Your task to perform on an android device: turn on the 12-hour format for clock Image 0: 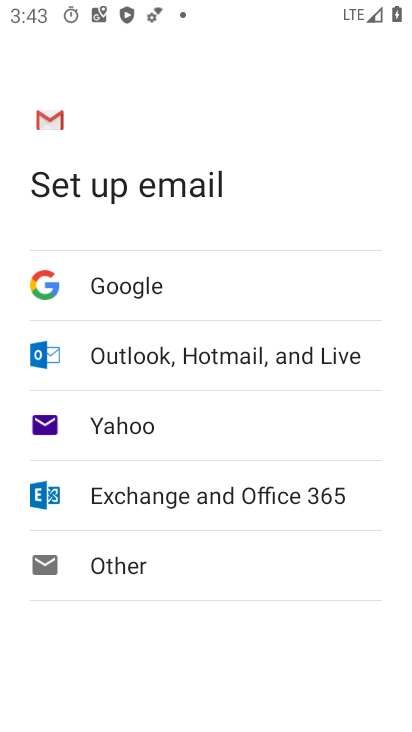
Step 0: press home button
Your task to perform on an android device: turn on the 12-hour format for clock Image 1: 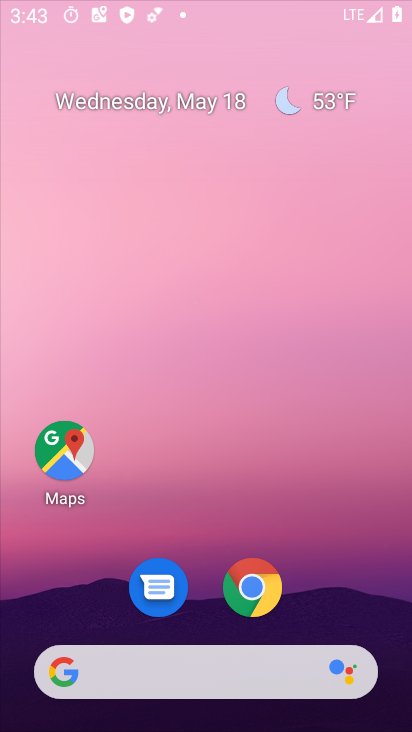
Step 1: drag from (224, 688) to (324, 40)
Your task to perform on an android device: turn on the 12-hour format for clock Image 2: 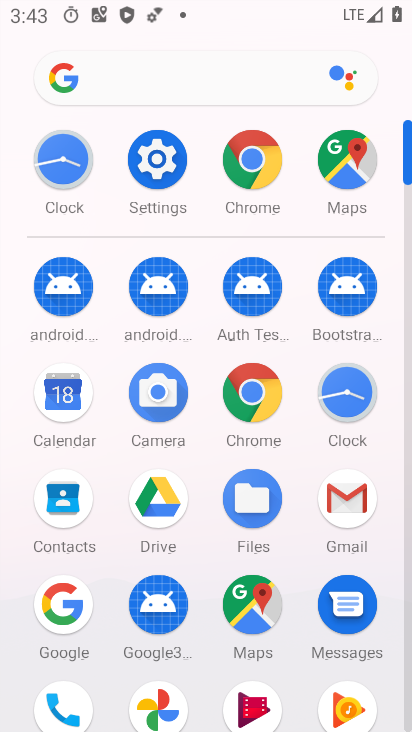
Step 2: click (351, 422)
Your task to perform on an android device: turn on the 12-hour format for clock Image 3: 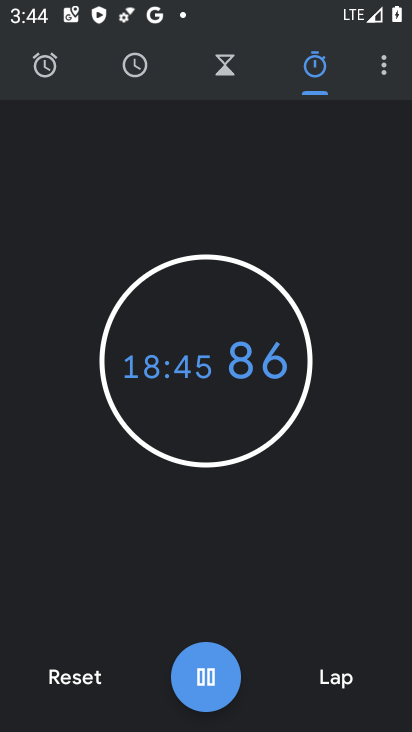
Step 3: click (385, 77)
Your task to perform on an android device: turn on the 12-hour format for clock Image 4: 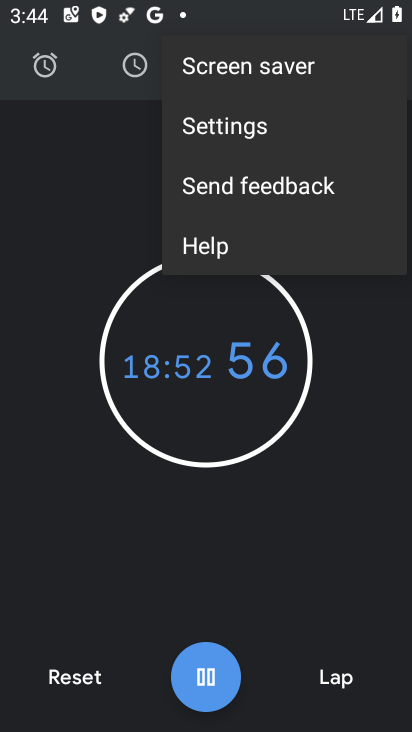
Step 4: click (276, 131)
Your task to perform on an android device: turn on the 12-hour format for clock Image 5: 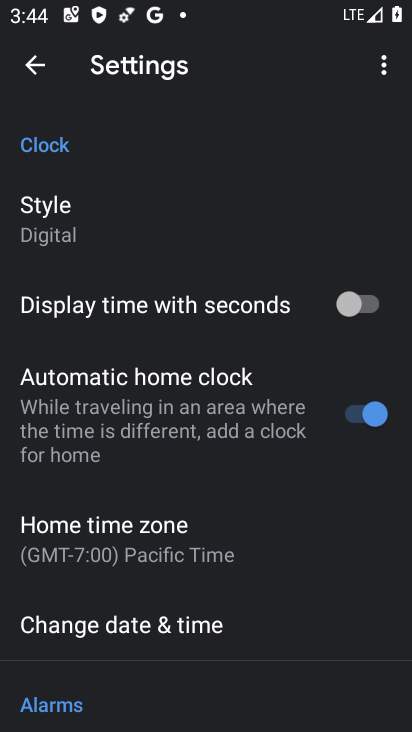
Step 5: drag from (170, 555) to (227, 307)
Your task to perform on an android device: turn on the 12-hour format for clock Image 6: 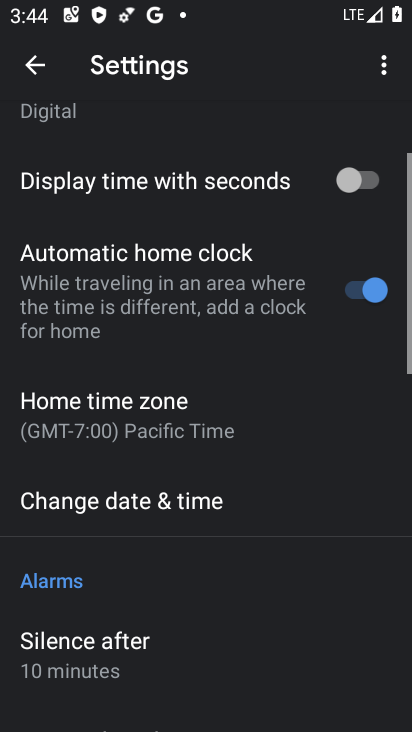
Step 6: click (234, 281)
Your task to perform on an android device: turn on the 12-hour format for clock Image 7: 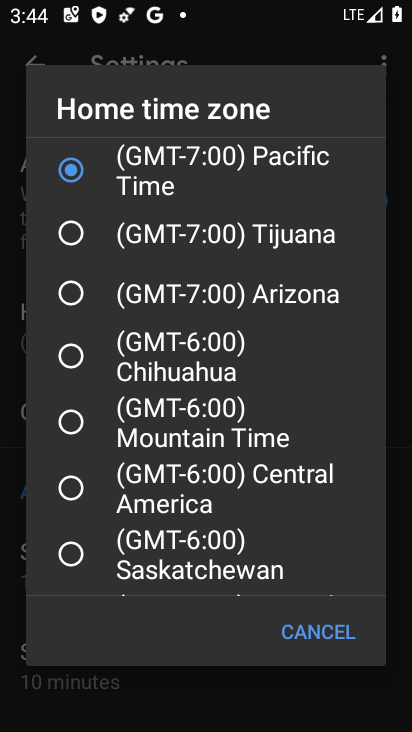
Step 7: click (288, 648)
Your task to perform on an android device: turn on the 12-hour format for clock Image 8: 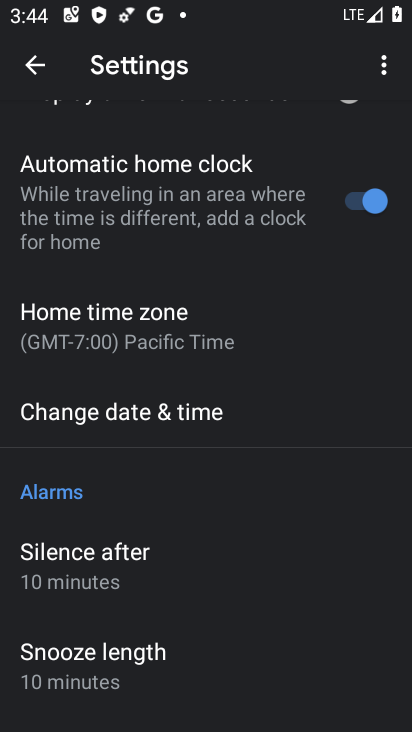
Step 8: click (212, 438)
Your task to perform on an android device: turn on the 12-hour format for clock Image 9: 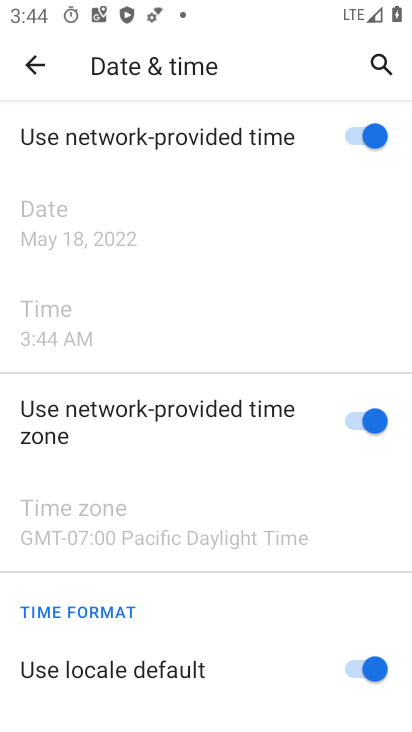
Step 9: task complete